Your task to perform on an android device: see tabs open on other devices in the chrome app Image 0: 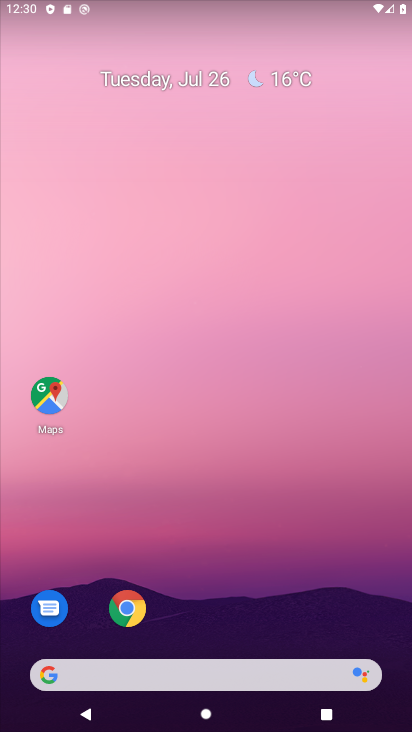
Step 0: click (148, 614)
Your task to perform on an android device: see tabs open on other devices in the chrome app Image 1: 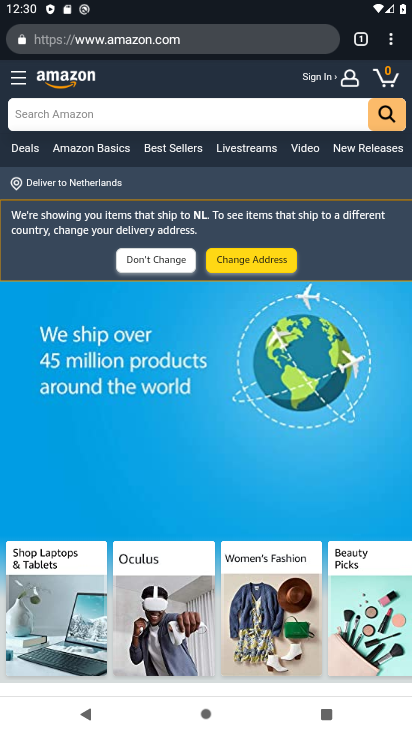
Step 1: click (395, 35)
Your task to perform on an android device: see tabs open on other devices in the chrome app Image 2: 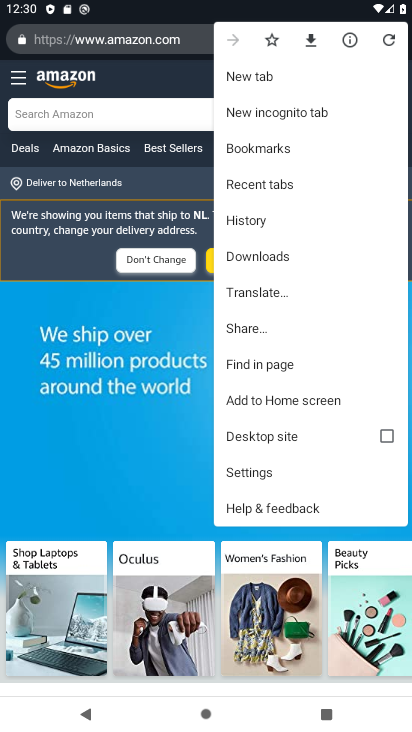
Step 2: click (268, 461)
Your task to perform on an android device: see tabs open on other devices in the chrome app Image 3: 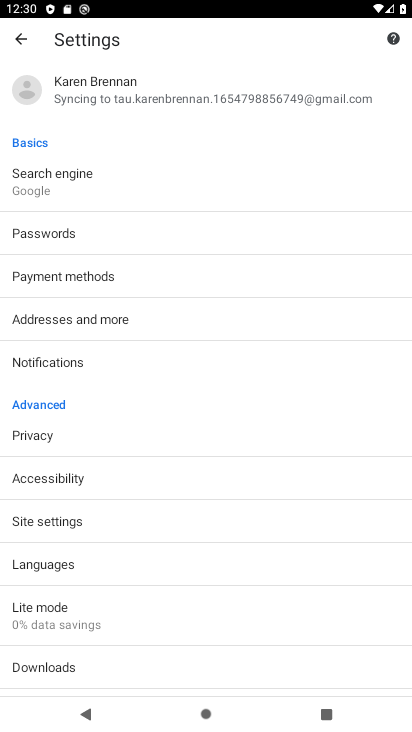
Step 3: task complete